Your task to perform on an android device: check data usage Image 0: 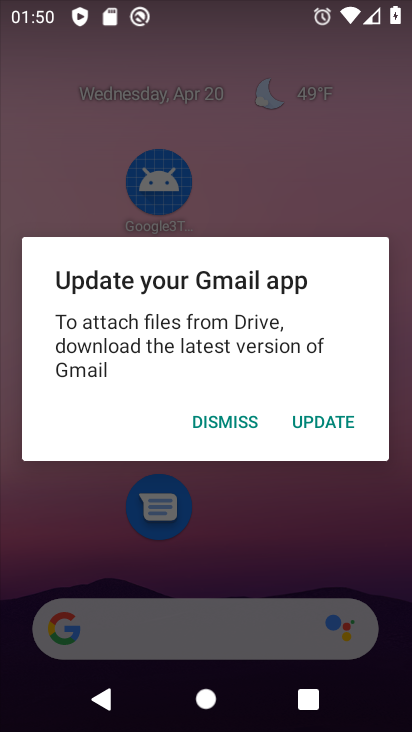
Step 0: press home button
Your task to perform on an android device: check data usage Image 1: 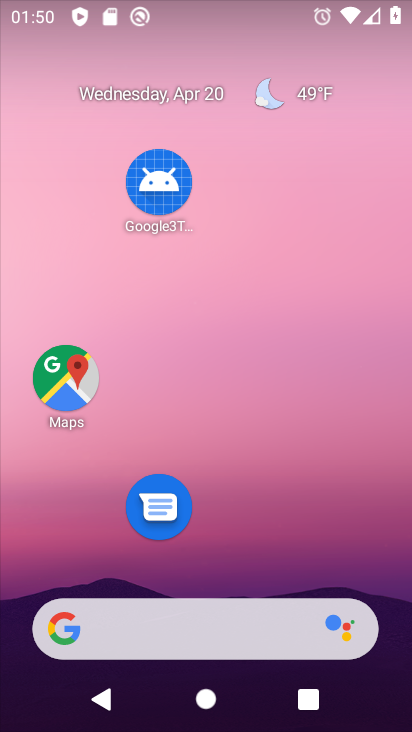
Step 1: drag from (229, 387) to (32, 22)
Your task to perform on an android device: check data usage Image 2: 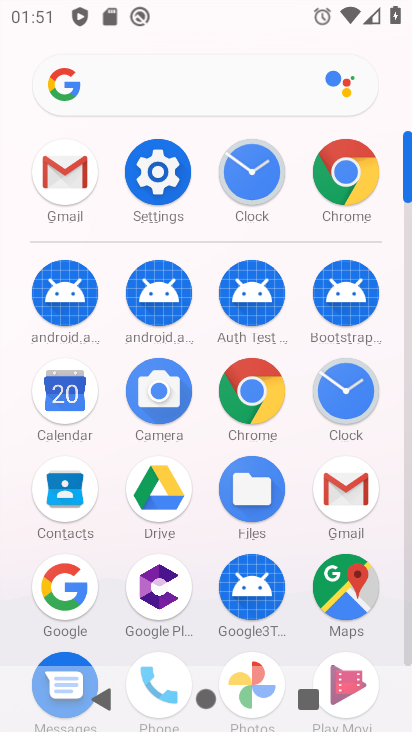
Step 2: drag from (206, 215) to (197, 8)
Your task to perform on an android device: check data usage Image 3: 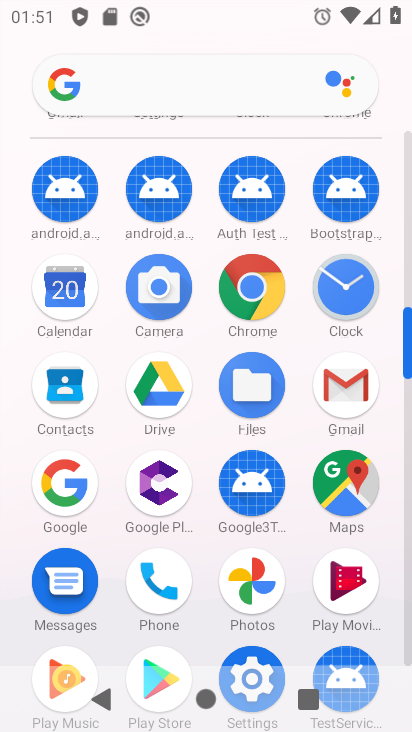
Step 3: drag from (258, 566) to (277, 128)
Your task to perform on an android device: check data usage Image 4: 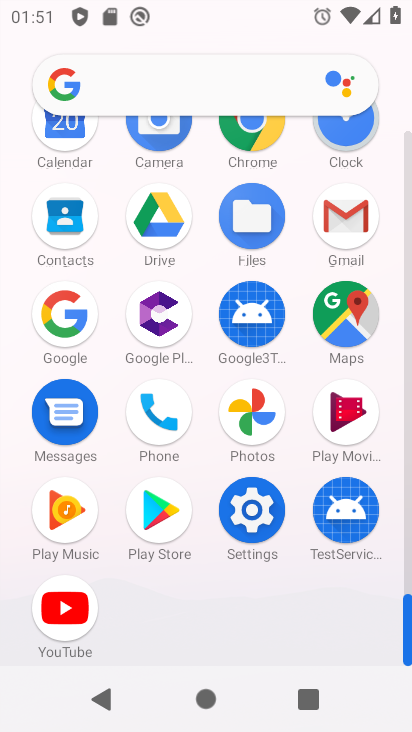
Step 4: click (248, 515)
Your task to perform on an android device: check data usage Image 5: 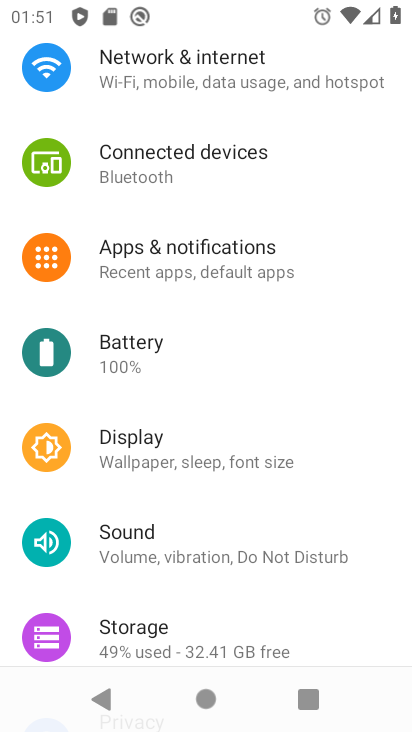
Step 5: drag from (151, 150) to (143, 612)
Your task to perform on an android device: check data usage Image 6: 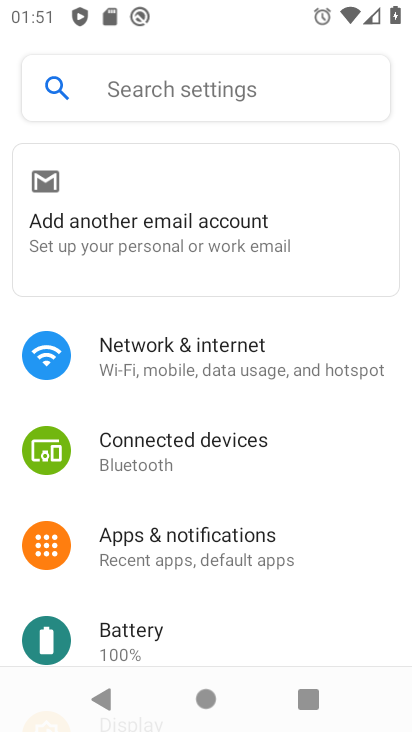
Step 6: click (180, 345)
Your task to perform on an android device: check data usage Image 7: 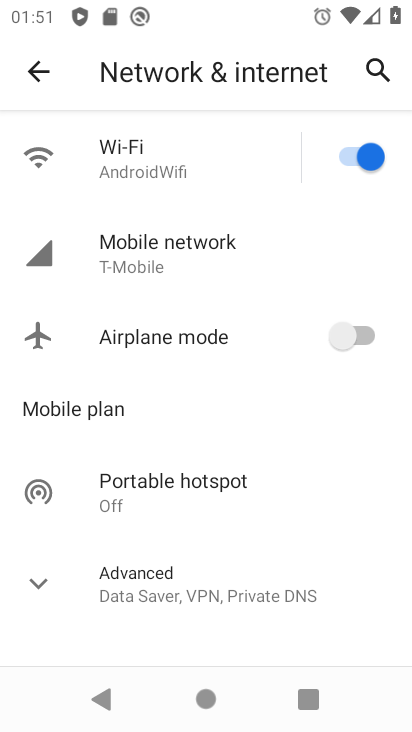
Step 7: click (178, 237)
Your task to perform on an android device: check data usage Image 8: 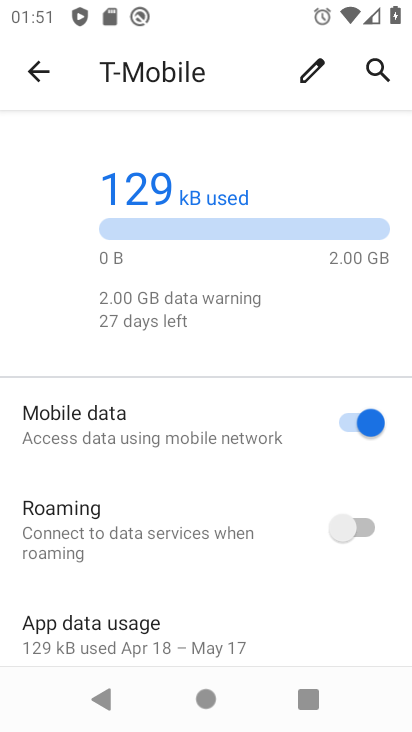
Step 8: task complete